Your task to perform on an android device: turn off translation in the chrome app Image 0: 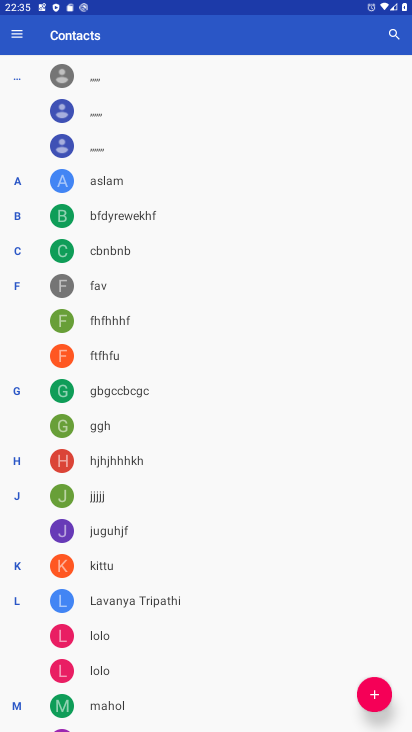
Step 0: press home button
Your task to perform on an android device: turn off translation in the chrome app Image 1: 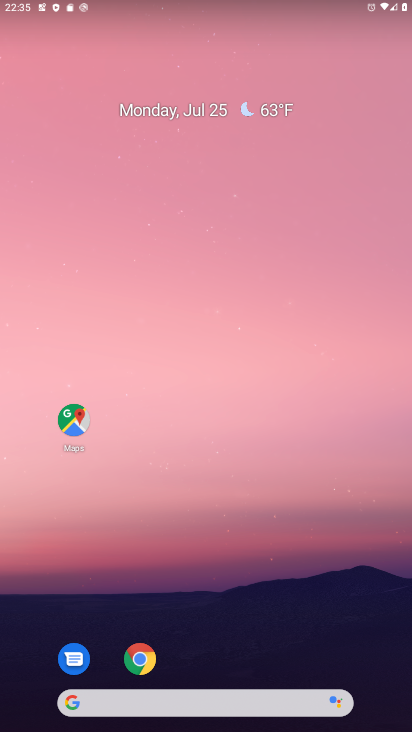
Step 1: click (140, 662)
Your task to perform on an android device: turn off translation in the chrome app Image 2: 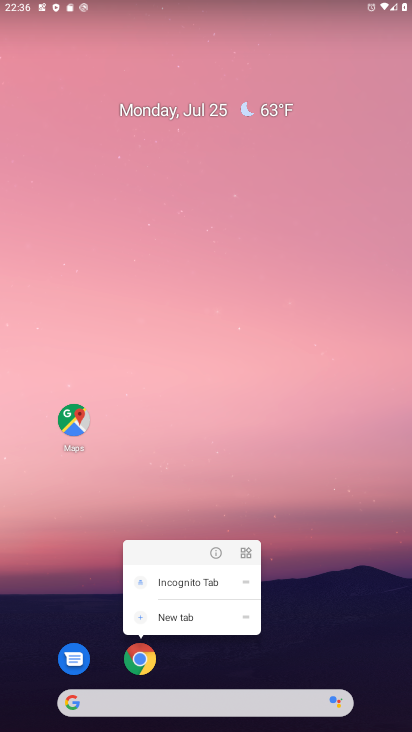
Step 2: click (137, 662)
Your task to perform on an android device: turn off translation in the chrome app Image 3: 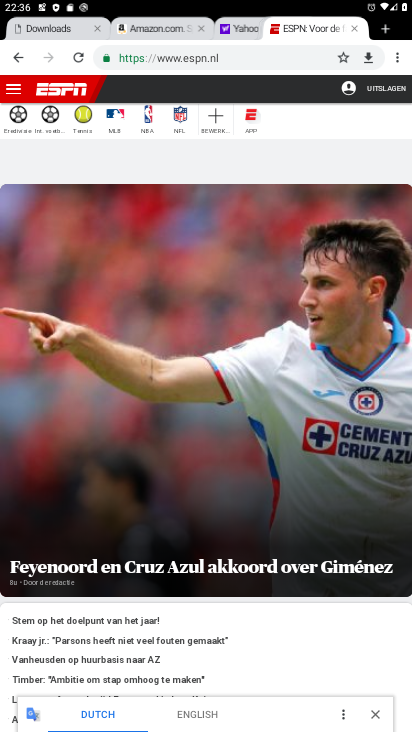
Step 3: click (399, 59)
Your task to perform on an android device: turn off translation in the chrome app Image 4: 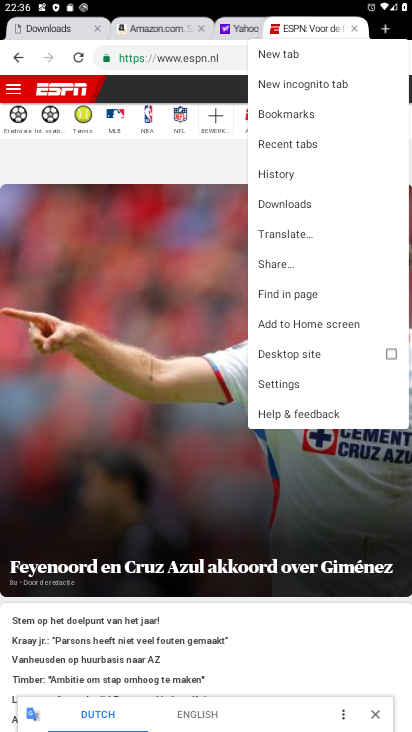
Step 4: click (279, 381)
Your task to perform on an android device: turn off translation in the chrome app Image 5: 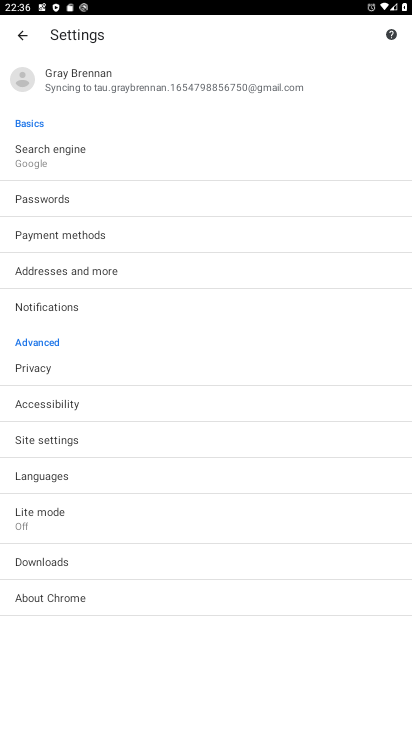
Step 5: click (46, 473)
Your task to perform on an android device: turn off translation in the chrome app Image 6: 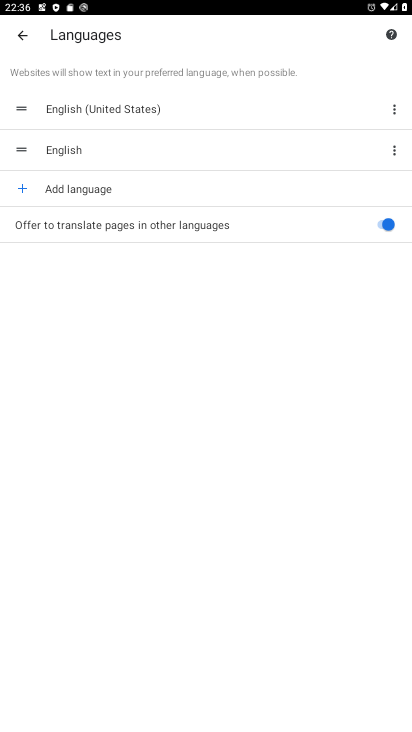
Step 6: click (380, 225)
Your task to perform on an android device: turn off translation in the chrome app Image 7: 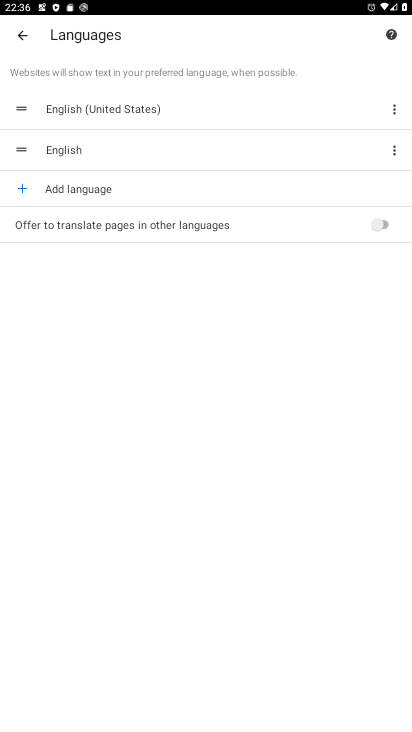
Step 7: task complete